Your task to perform on an android device: toggle javascript in the chrome app Image 0: 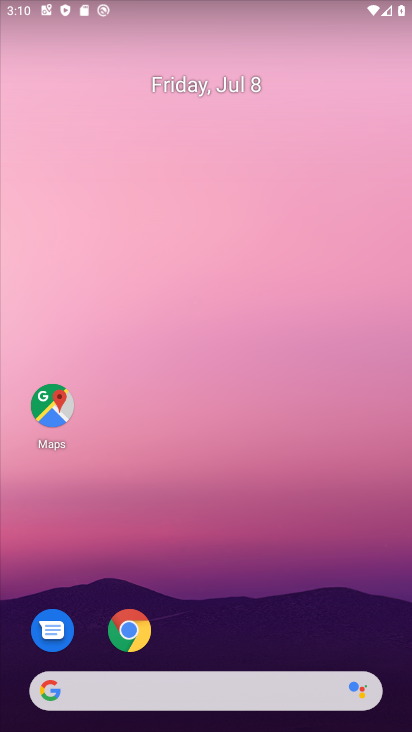
Step 0: drag from (246, 623) to (242, 180)
Your task to perform on an android device: toggle javascript in the chrome app Image 1: 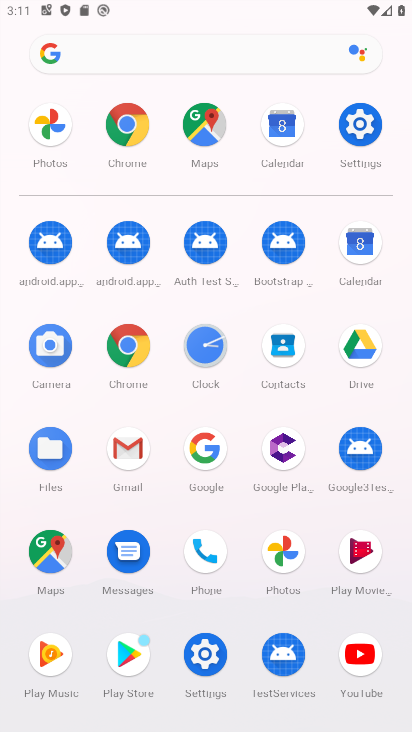
Step 1: click (121, 136)
Your task to perform on an android device: toggle javascript in the chrome app Image 2: 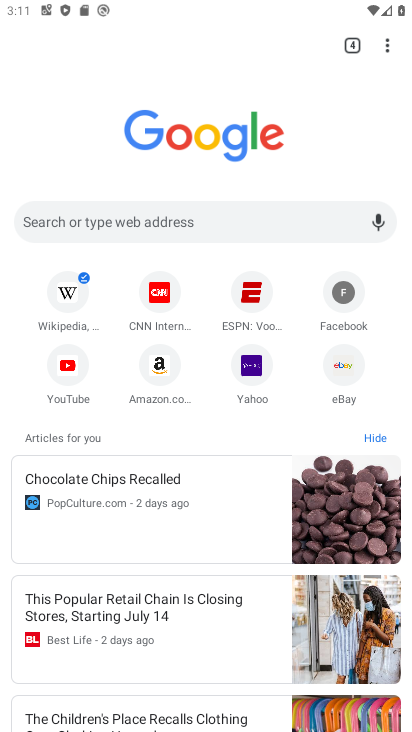
Step 2: click (386, 59)
Your task to perform on an android device: toggle javascript in the chrome app Image 3: 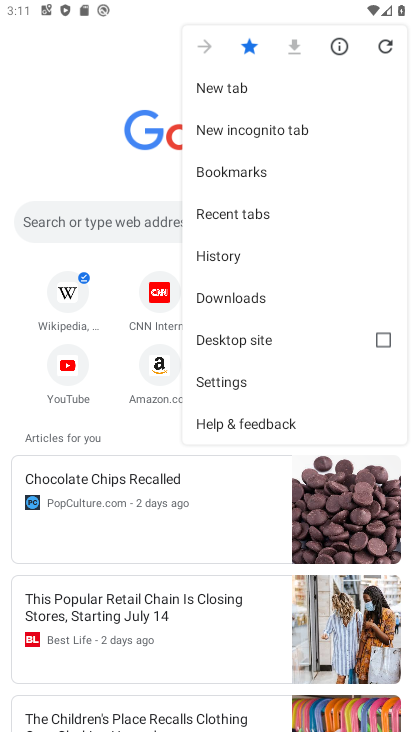
Step 3: click (259, 381)
Your task to perform on an android device: toggle javascript in the chrome app Image 4: 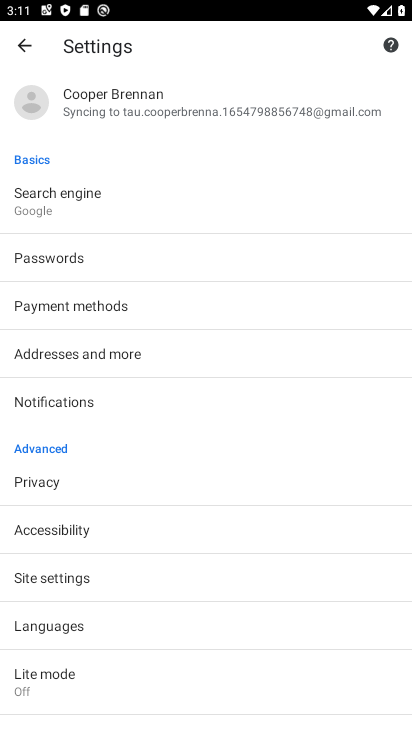
Step 4: click (70, 572)
Your task to perform on an android device: toggle javascript in the chrome app Image 5: 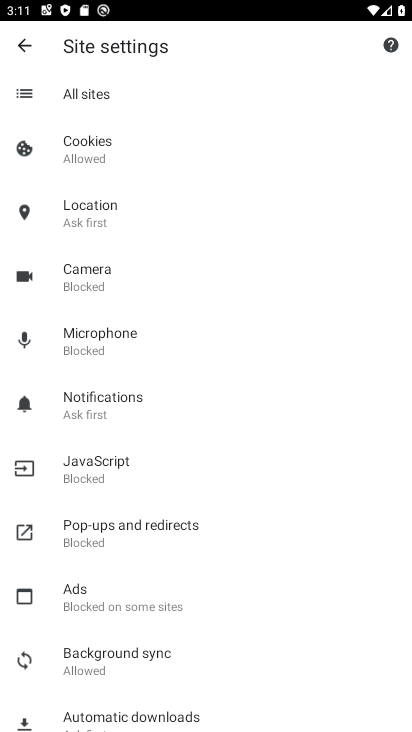
Step 5: click (149, 470)
Your task to perform on an android device: toggle javascript in the chrome app Image 6: 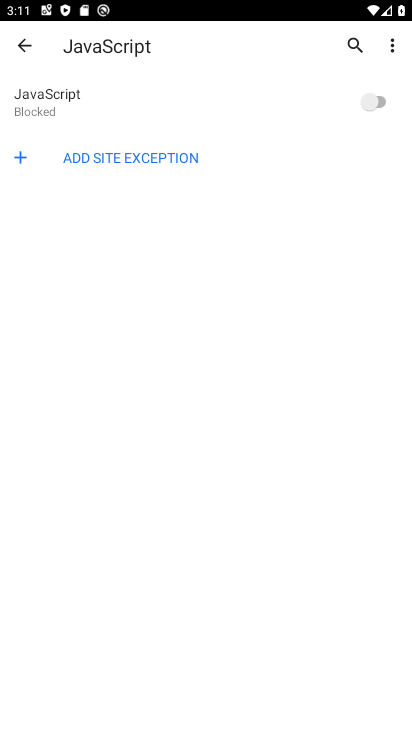
Step 6: click (380, 91)
Your task to perform on an android device: toggle javascript in the chrome app Image 7: 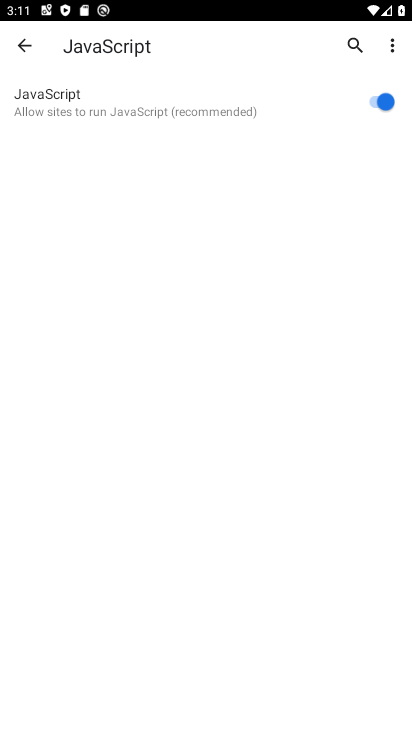
Step 7: task complete